Your task to perform on an android device: Open eBay Image 0: 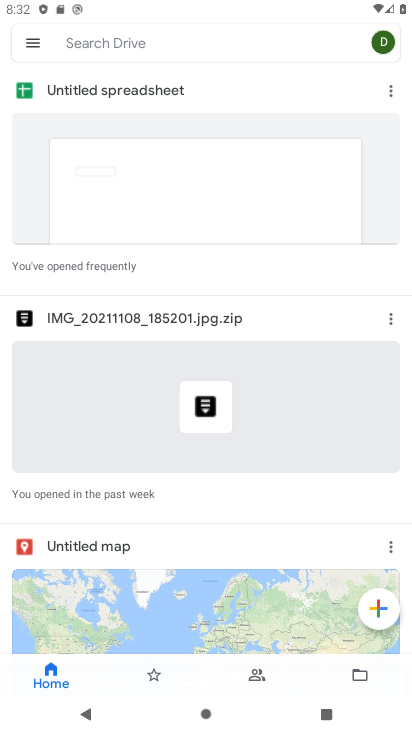
Step 0: press home button
Your task to perform on an android device: Open eBay Image 1: 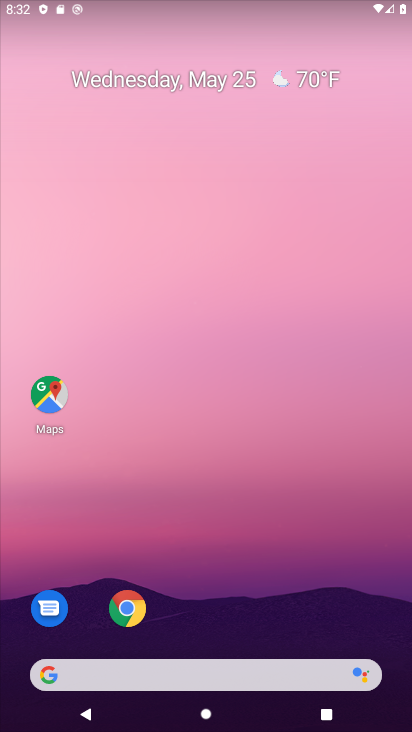
Step 1: click (125, 609)
Your task to perform on an android device: Open eBay Image 2: 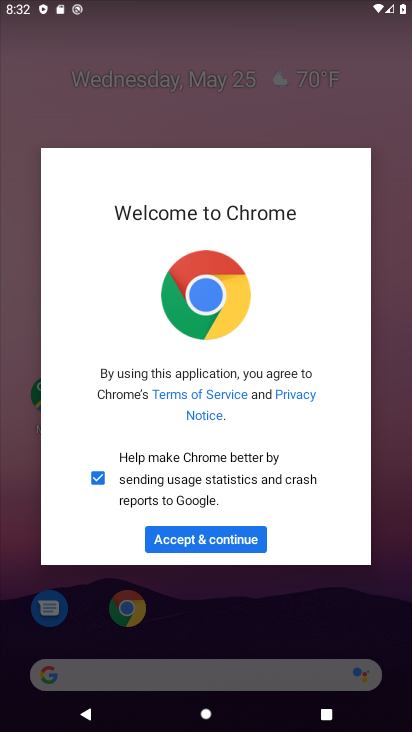
Step 2: click (239, 529)
Your task to perform on an android device: Open eBay Image 3: 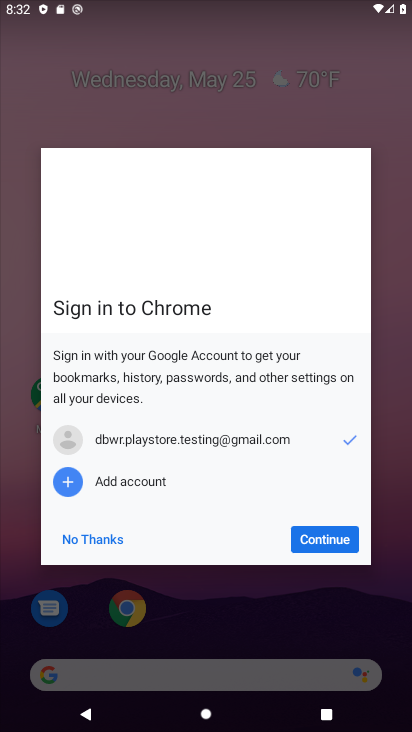
Step 3: click (339, 540)
Your task to perform on an android device: Open eBay Image 4: 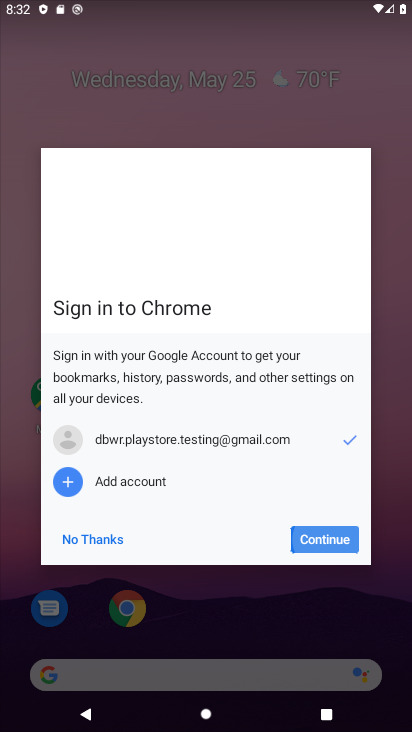
Step 4: click (339, 540)
Your task to perform on an android device: Open eBay Image 5: 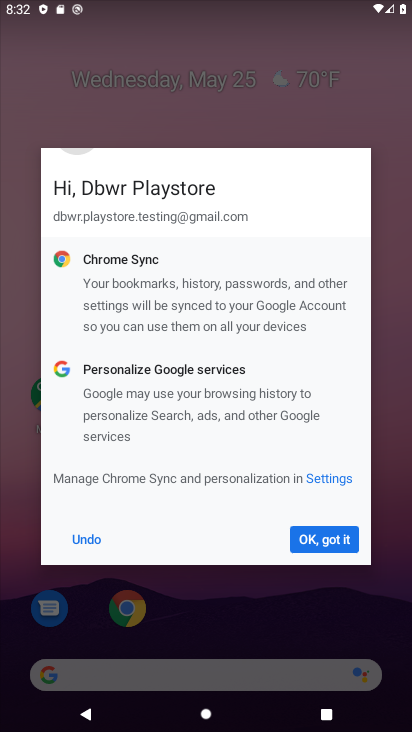
Step 5: click (320, 540)
Your task to perform on an android device: Open eBay Image 6: 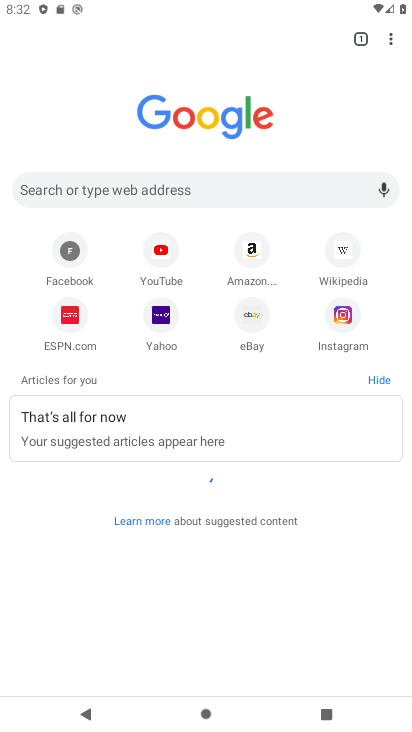
Step 6: click (251, 317)
Your task to perform on an android device: Open eBay Image 7: 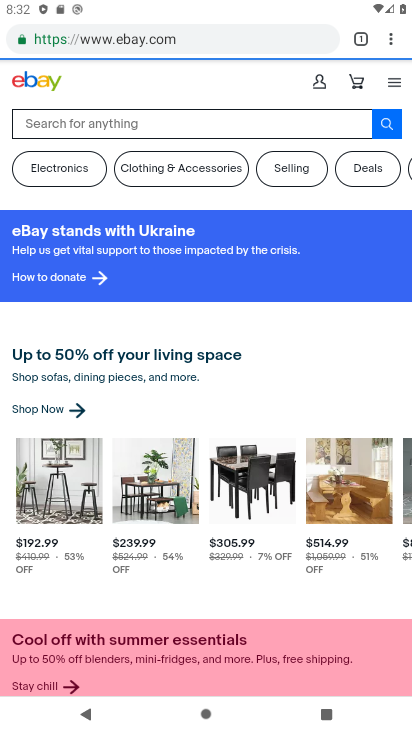
Step 7: task complete